Your task to perform on an android device: turn notification dots on Image 0: 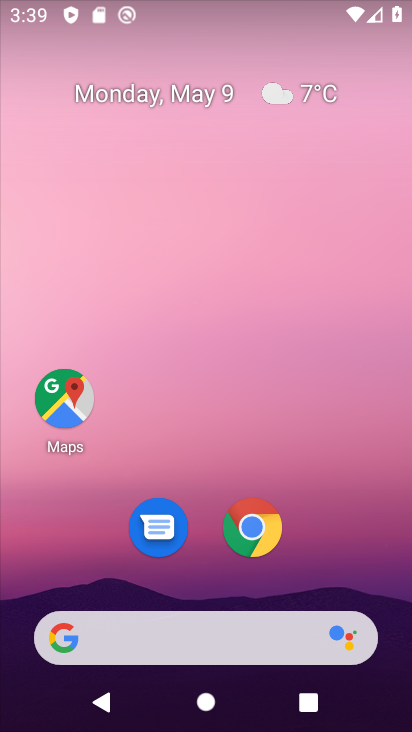
Step 0: drag from (204, 575) to (212, 52)
Your task to perform on an android device: turn notification dots on Image 1: 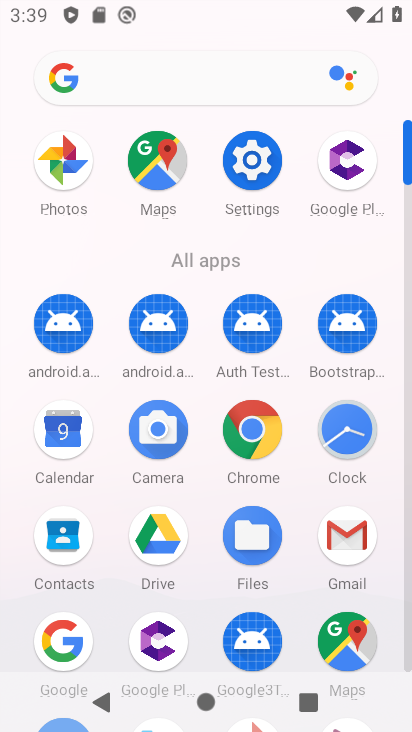
Step 1: click (260, 136)
Your task to perform on an android device: turn notification dots on Image 2: 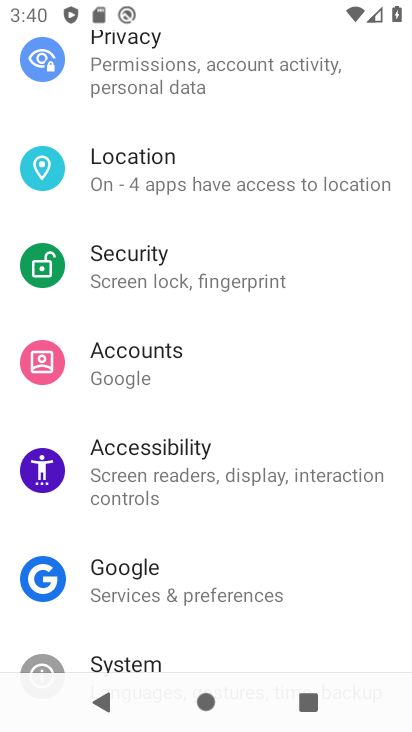
Step 2: drag from (179, 88) to (151, 677)
Your task to perform on an android device: turn notification dots on Image 3: 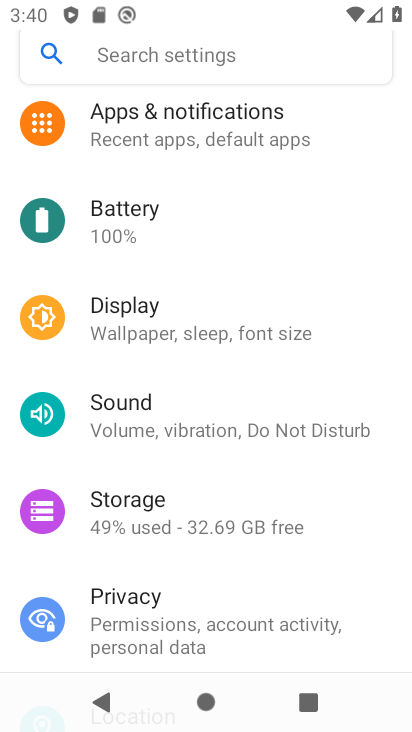
Step 3: click (136, 122)
Your task to perform on an android device: turn notification dots on Image 4: 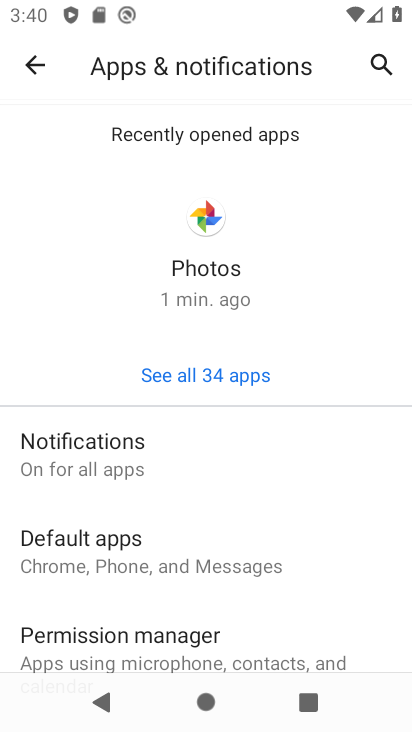
Step 4: click (130, 468)
Your task to perform on an android device: turn notification dots on Image 5: 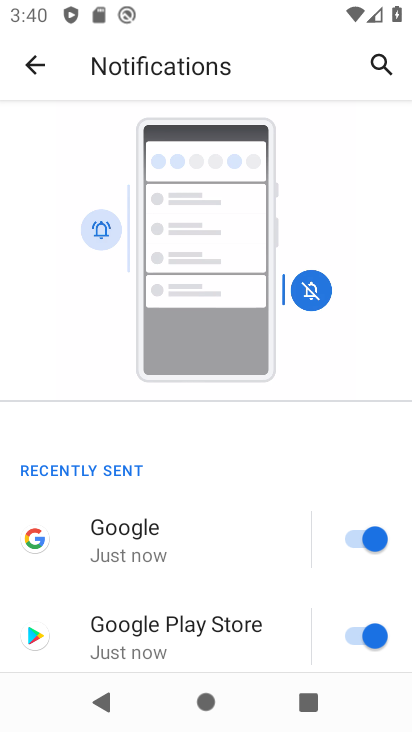
Step 5: drag from (108, 605) to (207, 48)
Your task to perform on an android device: turn notification dots on Image 6: 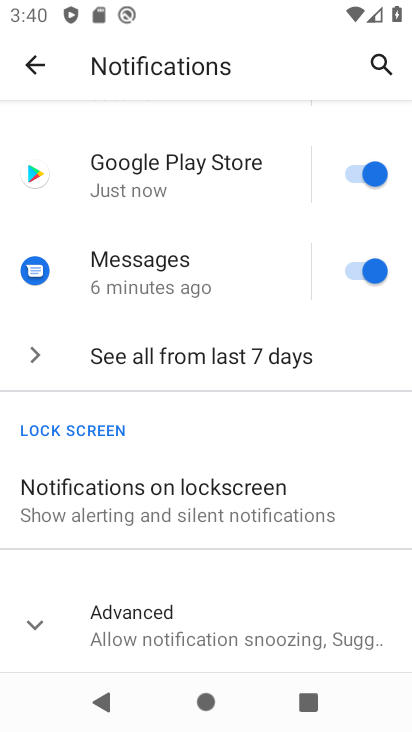
Step 6: click (343, 504)
Your task to perform on an android device: turn notification dots on Image 7: 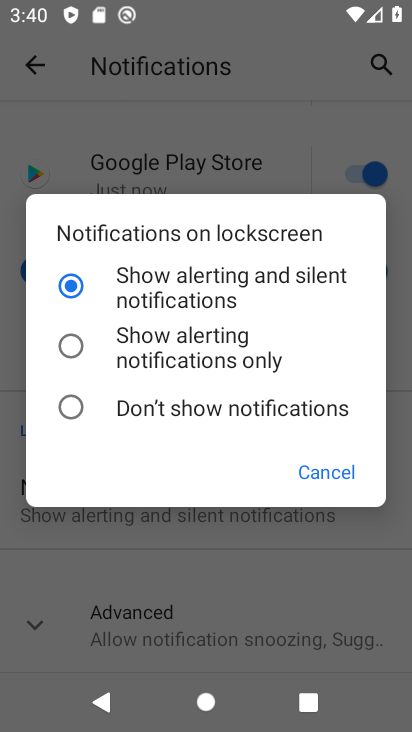
Step 7: click (334, 477)
Your task to perform on an android device: turn notification dots on Image 8: 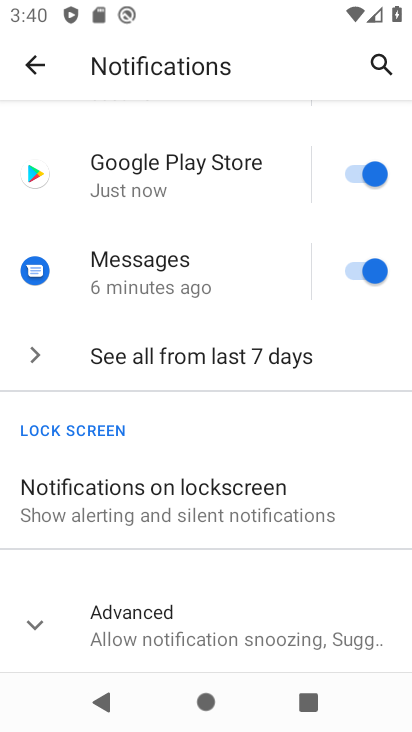
Step 8: click (41, 646)
Your task to perform on an android device: turn notification dots on Image 9: 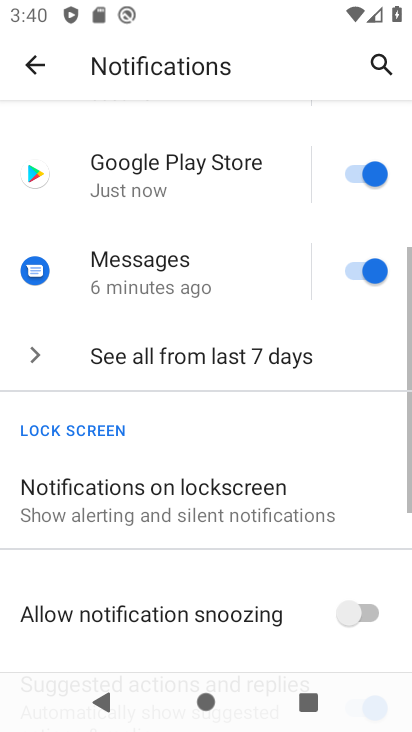
Step 9: task complete